Your task to perform on an android device: set the timer Image 0: 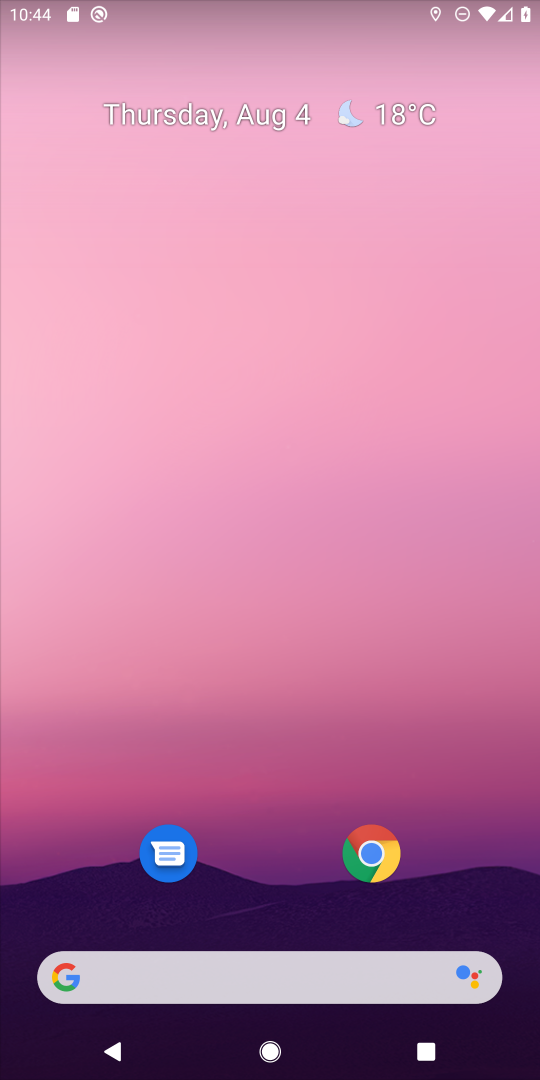
Step 0: drag from (266, 945) to (200, 141)
Your task to perform on an android device: set the timer Image 1: 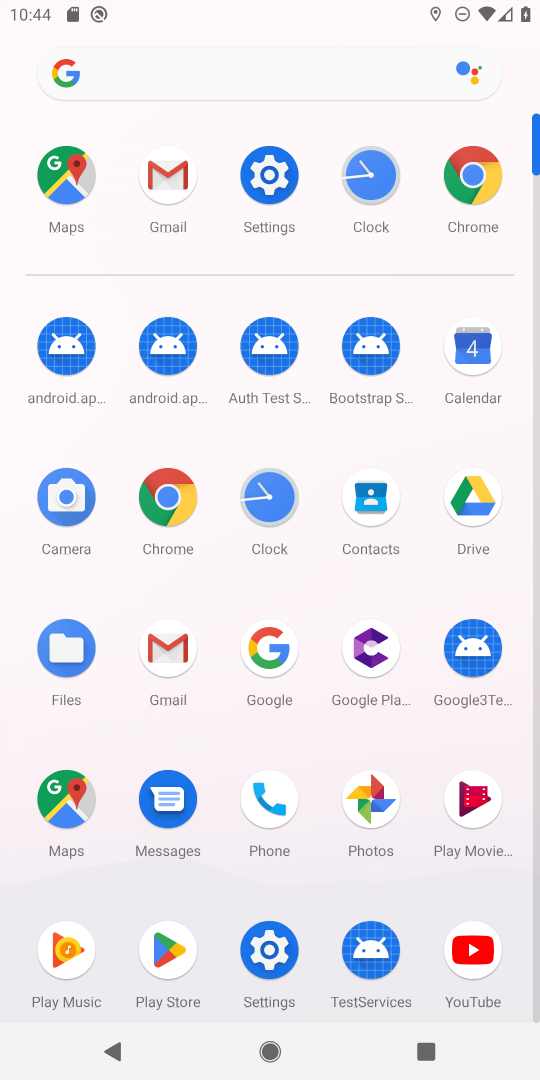
Step 1: click (275, 465)
Your task to perform on an android device: set the timer Image 2: 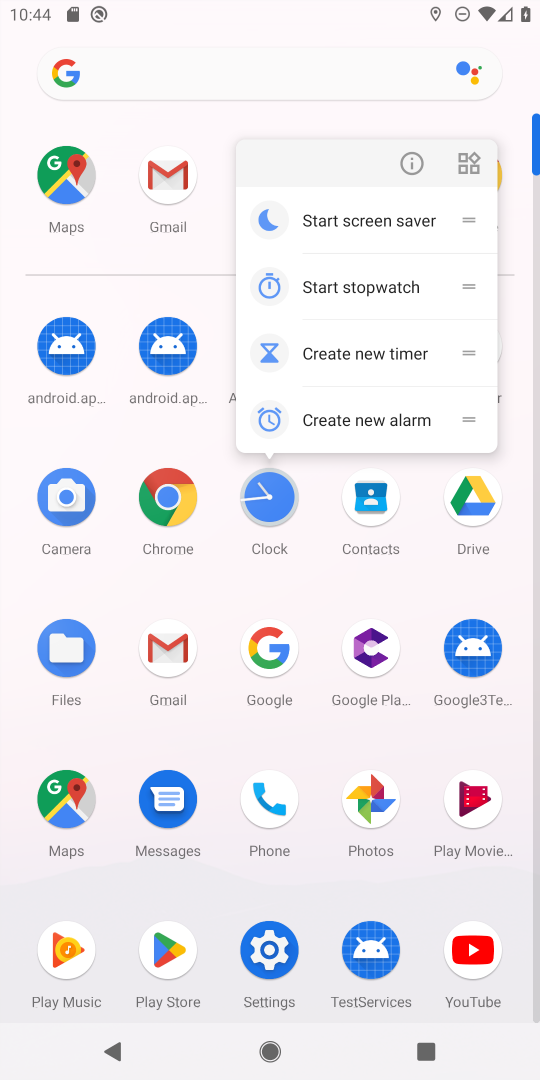
Step 2: click (279, 486)
Your task to perform on an android device: set the timer Image 3: 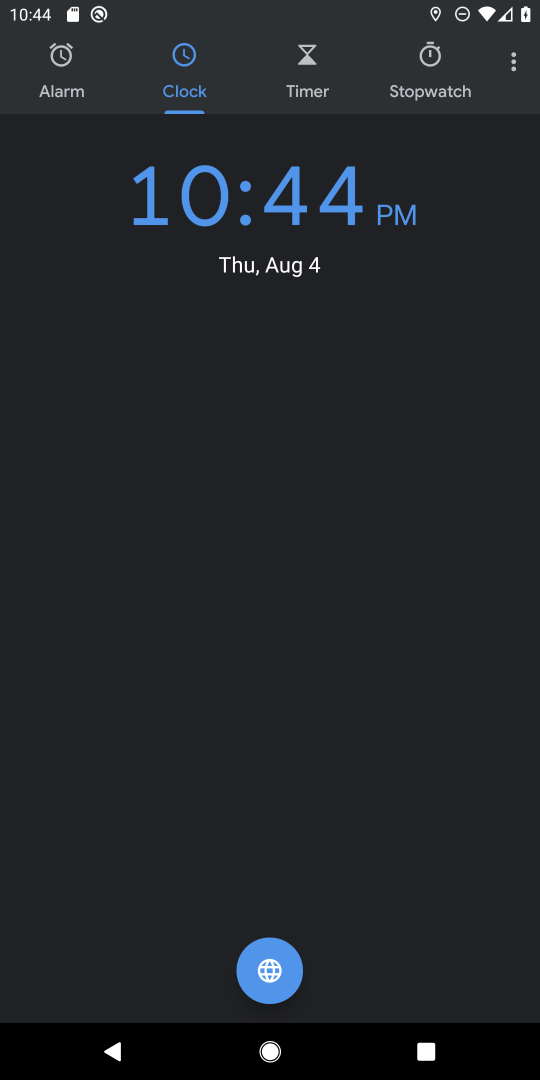
Step 3: click (300, 74)
Your task to perform on an android device: set the timer Image 4: 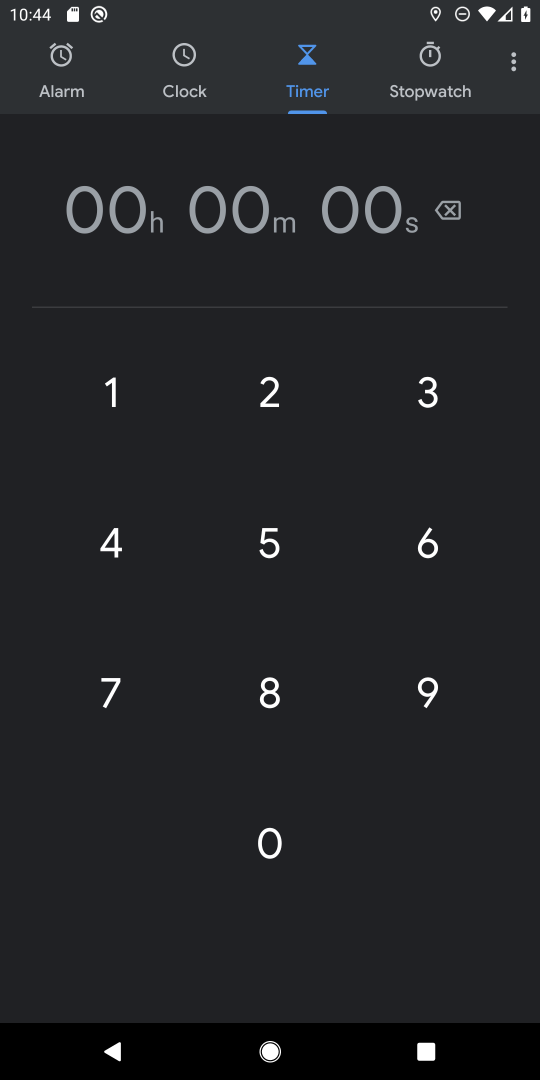
Step 4: click (283, 399)
Your task to perform on an android device: set the timer Image 5: 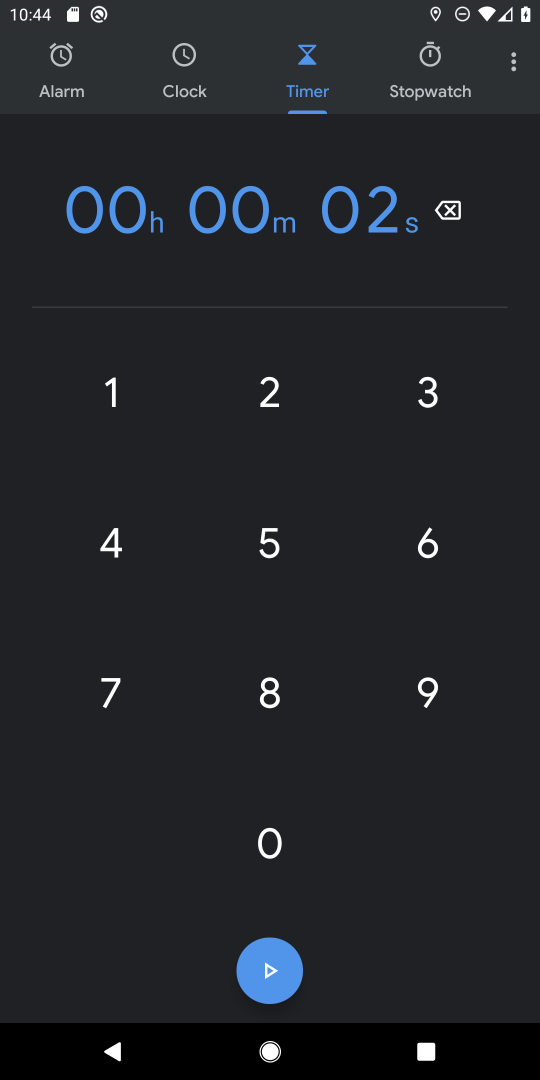
Step 5: click (270, 509)
Your task to perform on an android device: set the timer Image 6: 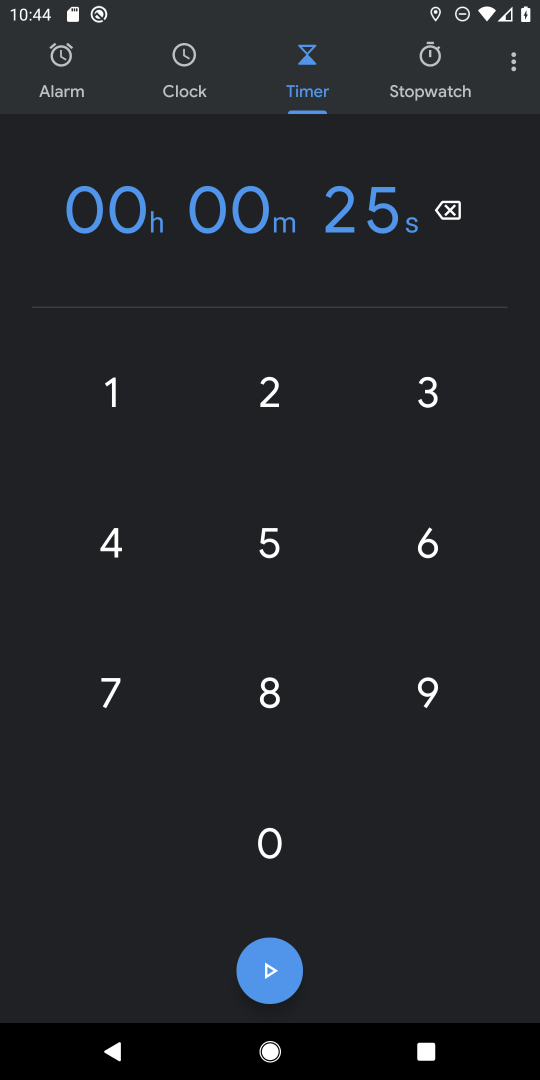
Step 6: task complete